Your task to perform on an android device: turn on the 24-hour format for clock Image 0: 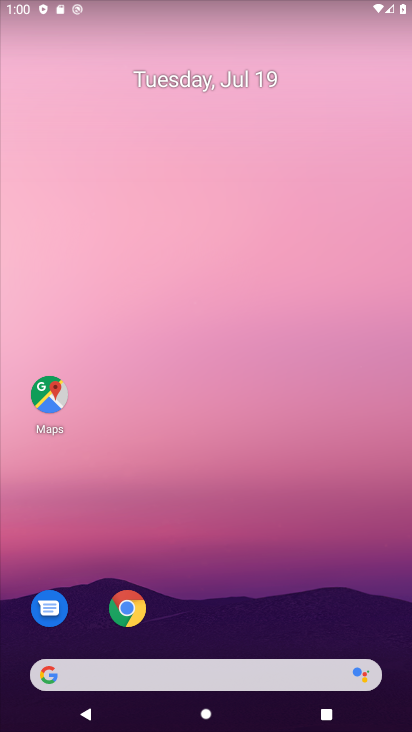
Step 0: drag from (277, 504) to (277, 163)
Your task to perform on an android device: turn on the 24-hour format for clock Image 1: 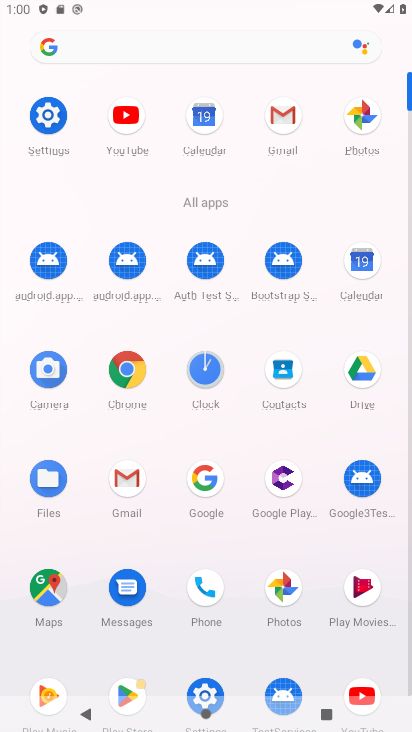
Step 1: click (206, 371)
Your task to perform on an android device: turn on the 24-hour format for clock Image 2: 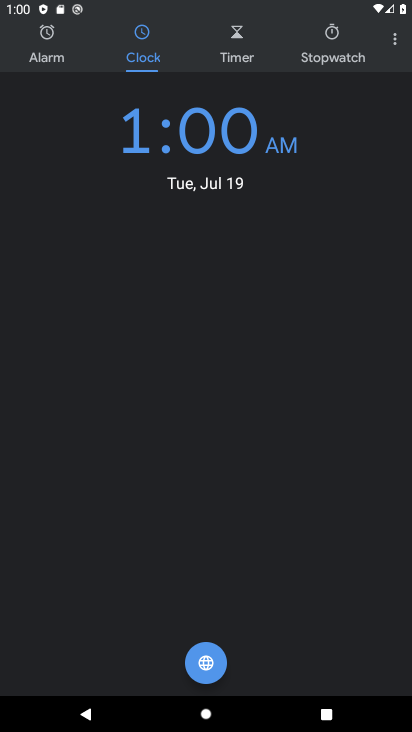
Step 2: click (396, 43)
Your task to perform on an android device: turn on the 24-hour format for clock Image 3: 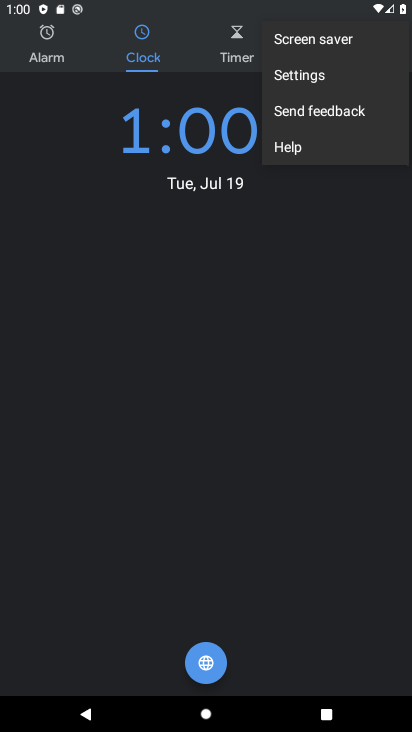
Step 3: click (315, 76)
Your task to perform on an android device: turn on the 24-hour format for clock Image 4: 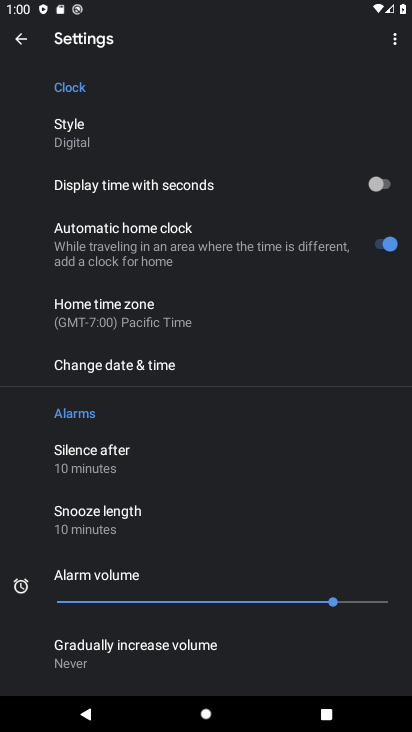
Step 4: task complete